Your task to perform on an android device: choose inbox layout in the gmail app Image 0: 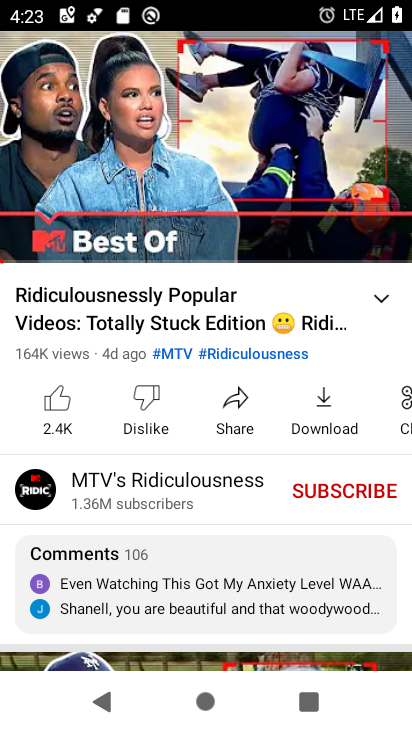
Step 0: press home button
Your task to perform on an android device: choose inbox layout in the gmail app Image 1: 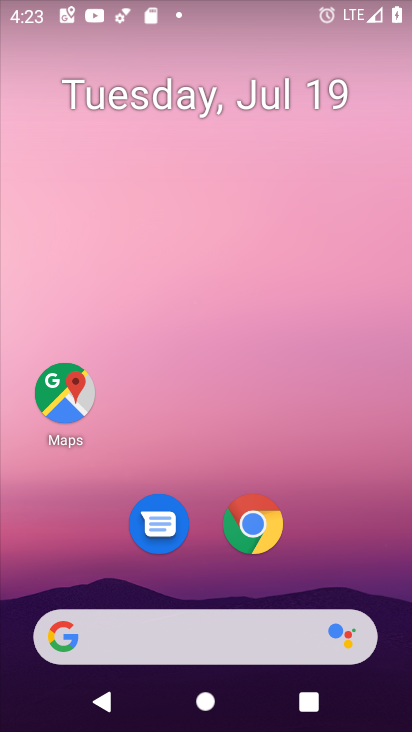
Step 1: drag from (308, 561) to (280, 73)
Your task to perform on an android device: choose inbox layout in the gmail app Image 2: 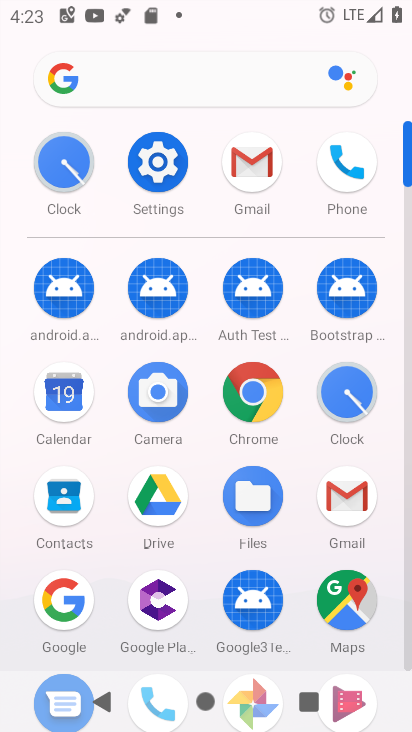
Step 2: click (248, 175)
Your task to perform on an android device: choose inbox layout in the gmail app Image 3: 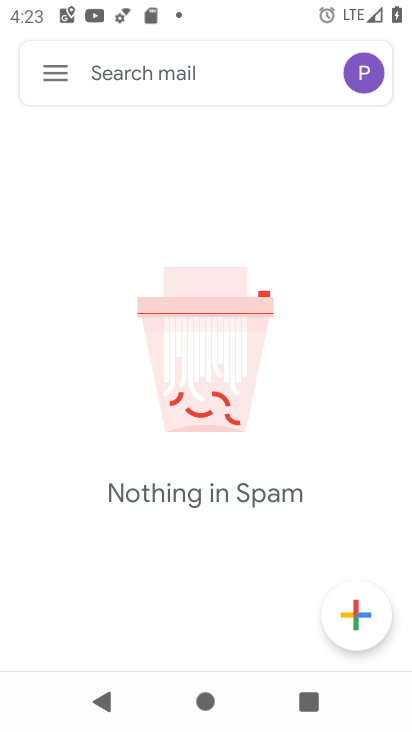
Step 3: click (55, 75)
Your task to perform on an android device: choose inbox layout in the gmail app Image 4: 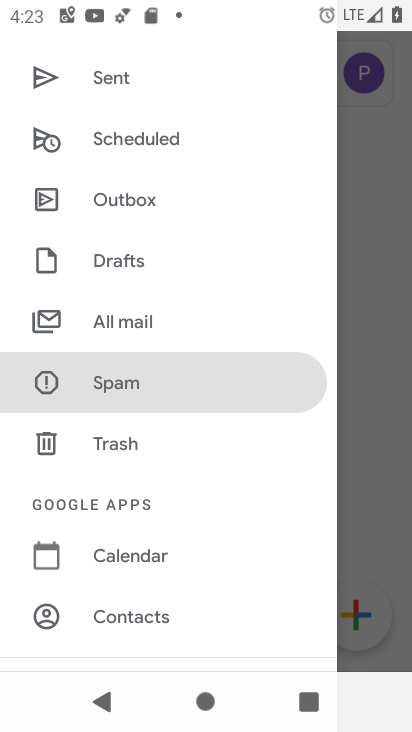
Step 4: drag from (186, 566) to (193, 250)
Your task to perform on an android device: choose inbox layout in the gmail app Image 5: 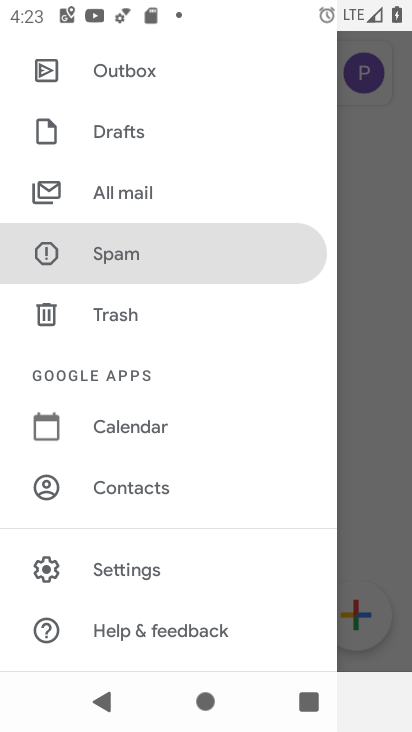
Step 5: click (127, 566)
Your task to perform on an android device: choose inbox layout in the gmail app Image 6: 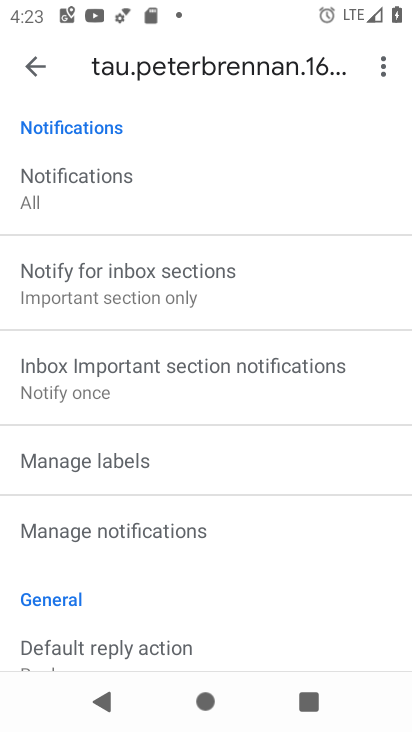
Step 6: drag from (246, 157) to (273, 613)
Your task to perform on an android device: choose inbox layout in the gmail app Image 7: 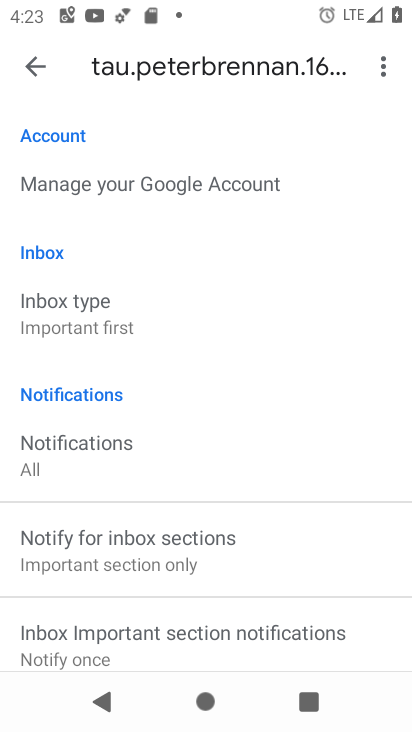
Step 7: click (92, 321)
Your task to perform on an android device: choose inbox layout in the gmail app Image 8: 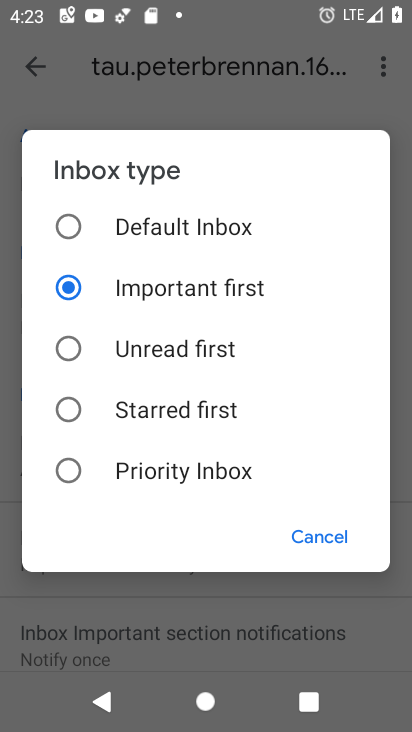
Step 8: click (70, 222)
Your task to perform on an android device: choose inbox layout in the gmail app Image 9: 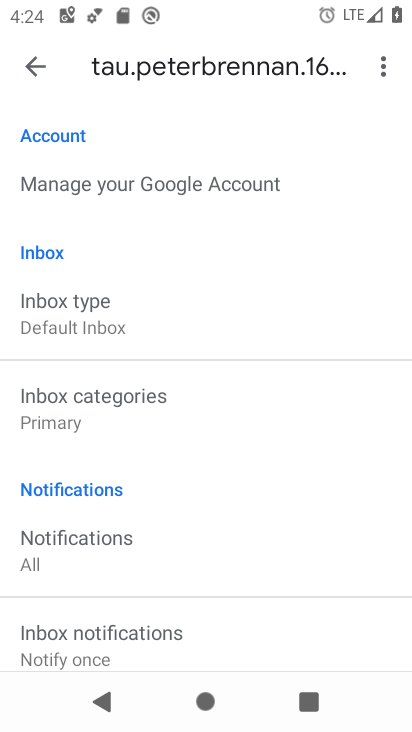
Step 9: task complete